Your task to perform on an android device: turn off location Image 0: 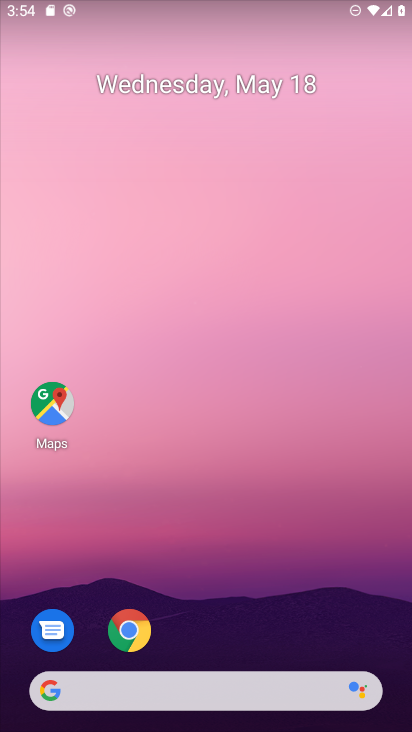
Step 0: press home button
Your task to perform on an android device: turn off location Image 1: 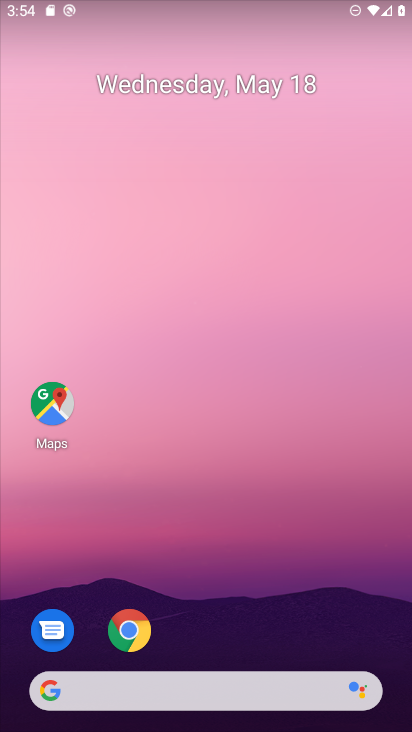
Step 1: drag from (234, 624) to (262, 51)
Your task to perform on an android device: turn off location Image 2: 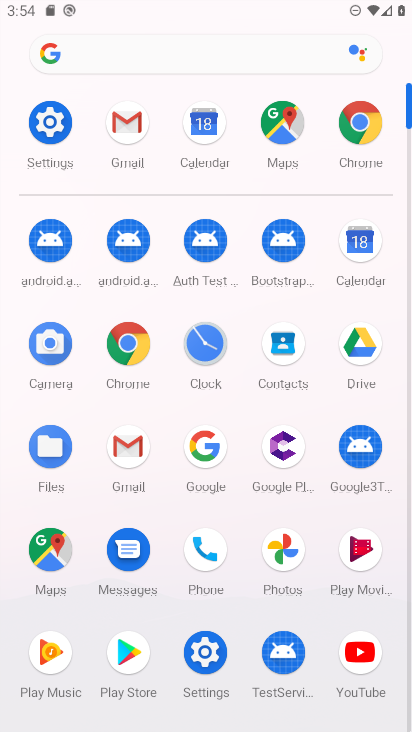
Step 2: click (50, 117)
Your task to perform on an android device: turn off location Image 3: 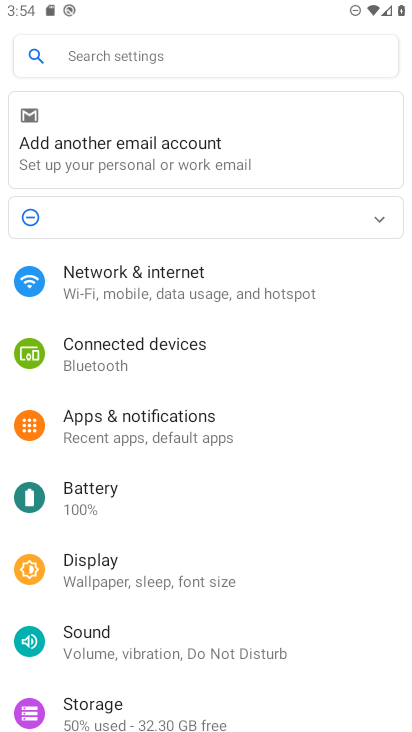
Step 3: drag from (162, 678) to (194, 209)
Your task to perform on an android device: turn off location Image 4: 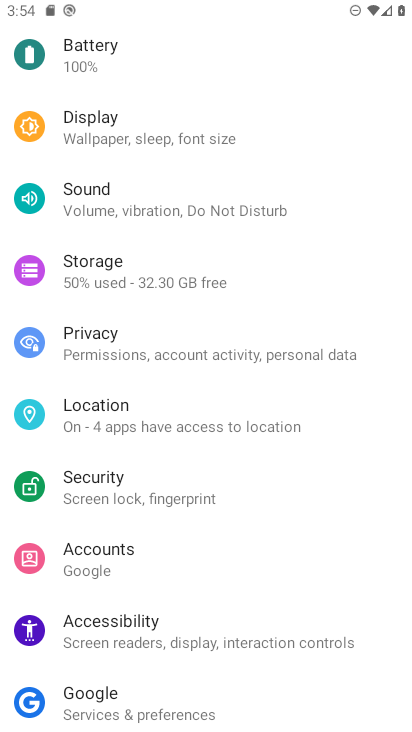
Step 4: click (141, 402)
Your task to perform on an android device: turn off location Image 5: 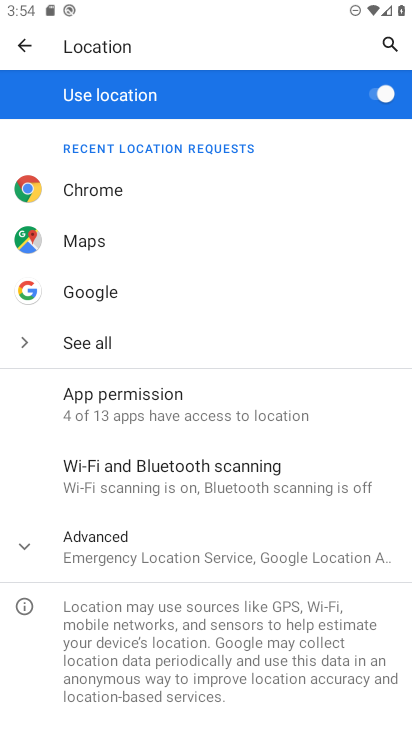
Step 5: click (373, 91)
Your task to perform on an android device: turn off location Image 6: 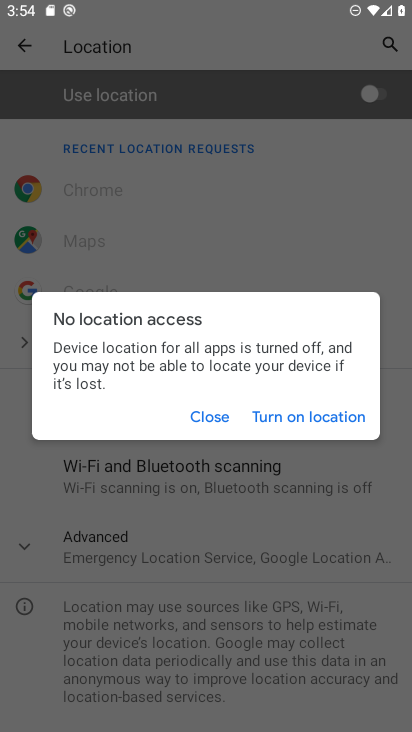
Step 6: click (218, 421)
Your task to perform on an android device: turn off location Image 7: 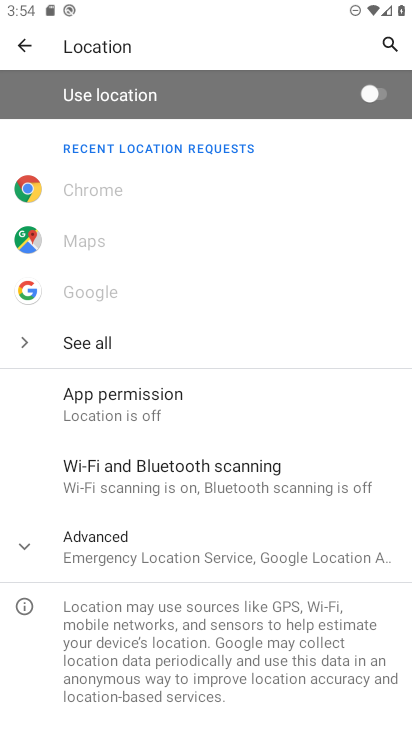
Step 7: task complete